Your task to perform on an android device: turn on improve location accuracy Image 0: 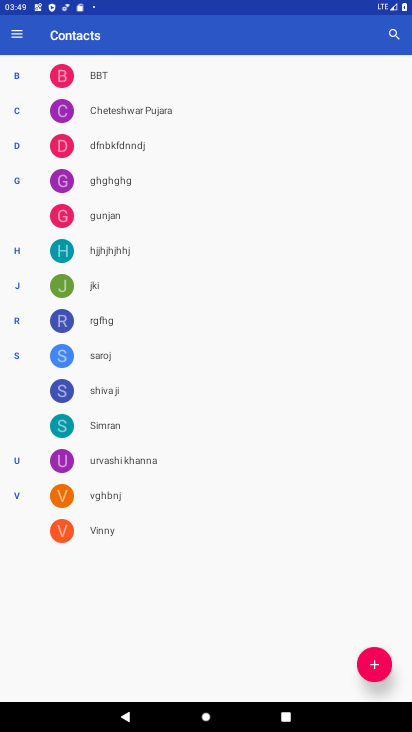
Step 0: press home button
Your task to perform on an android device: turn on improve location accuracy Image 1: 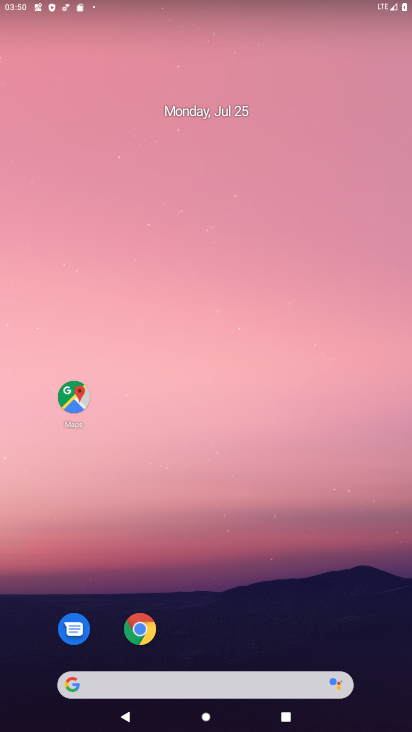
Step 1: drag from (305, 632) to (212, 0)
Your task to perform on an android device: turn on improve location accuracy Image 2: 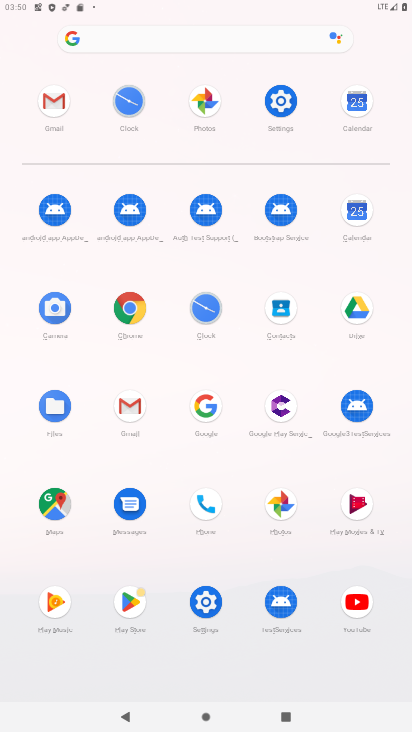
Step 2: click (287, 105)
Your task to perform on an android device: turn on improve location accuracy Image 3: 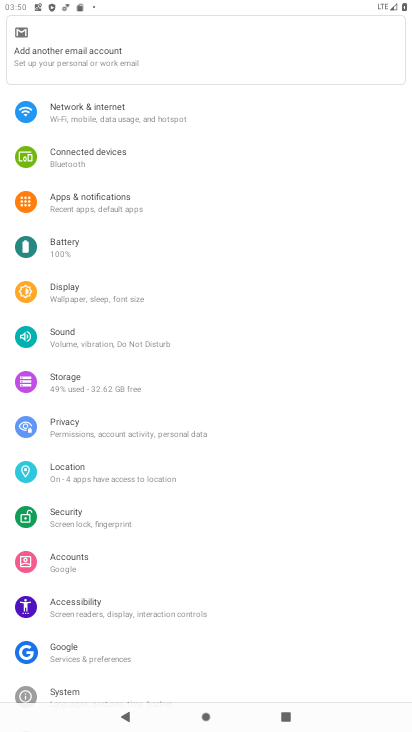
Step 3: click (60, 475)
Your task to perform on an android device: turn on improve location accuracy Image 4: 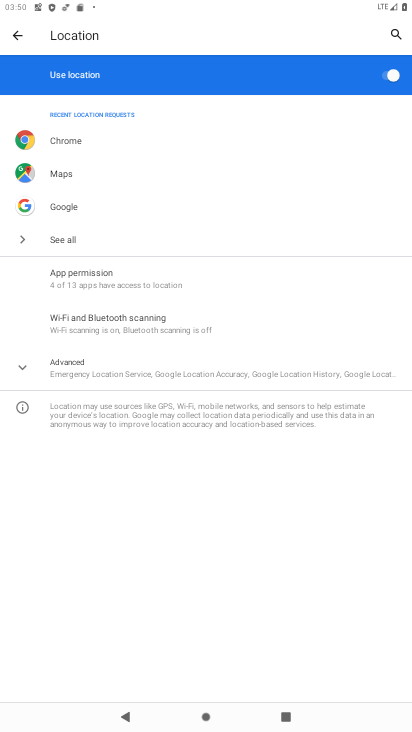
Step 4: click (23, 375)
Your task to perform on an android device: turn on improve location accuracy Image 5: 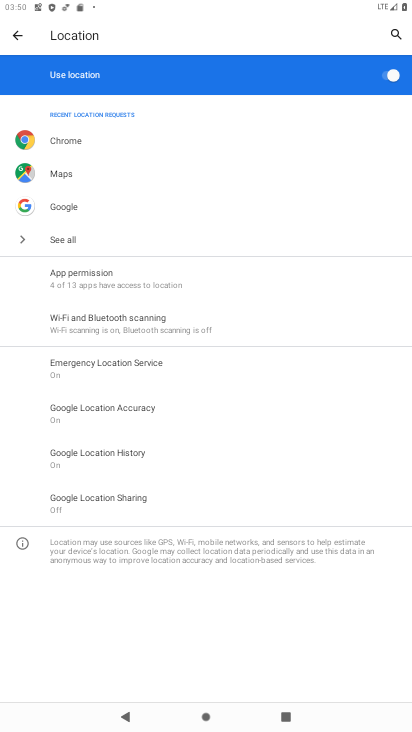
Step 5: click (82, 419)
Your task to perform on an android device: turn on improve location accuracy Image 6: 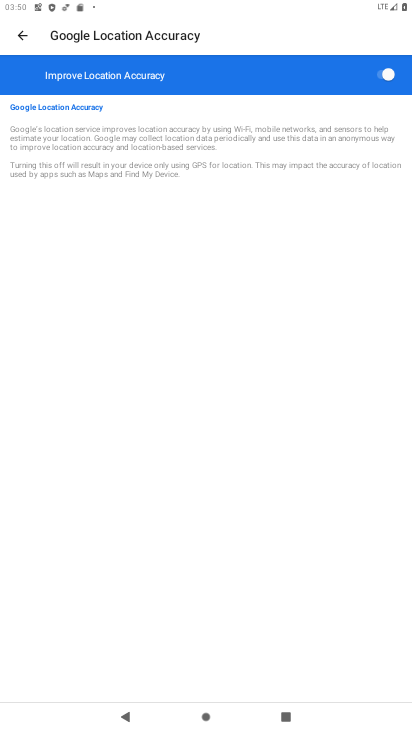
Step 6: task complete